Your task to perform on an android device: Open calendar and show me the first week of next month Image 0: 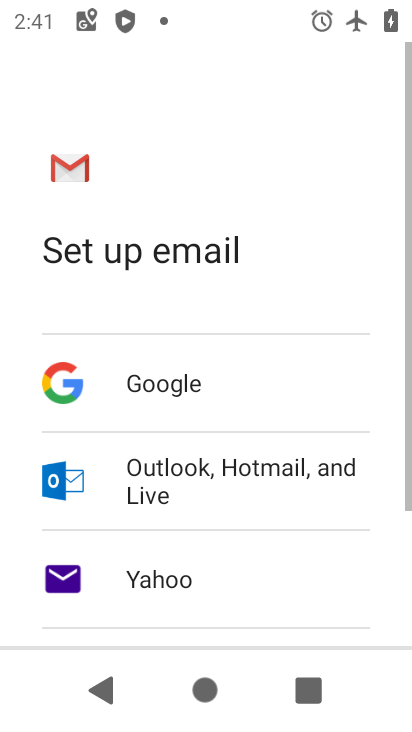
Step 0: press home button
Your task to perform on an android device: Open calendar and show me the first week of next month Image 1: 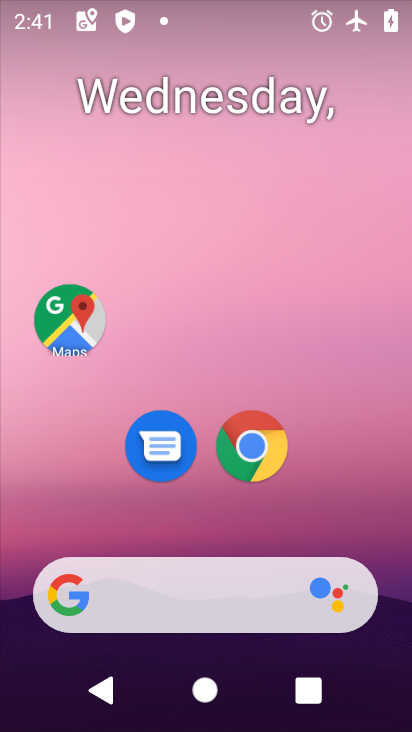
Step 1: drag from (217, 532) to (190, 227)
Your task to perform on an android device: Open calendar and show me the first week of next month Image 2: 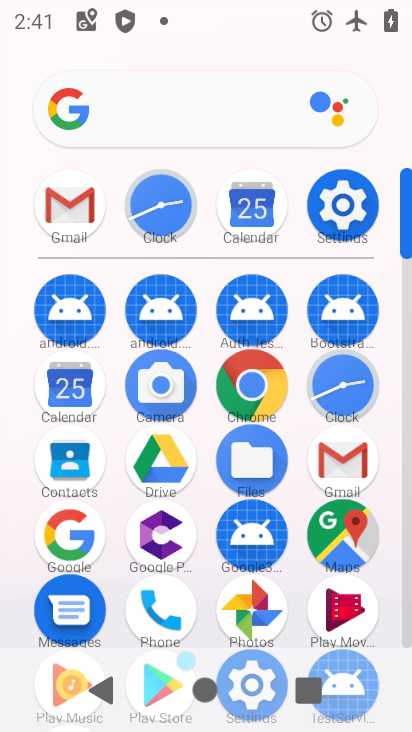
Step 2: click (239, 211)
Your task to perform on an android device: Open calendar and show me the first week of next month Image 3: 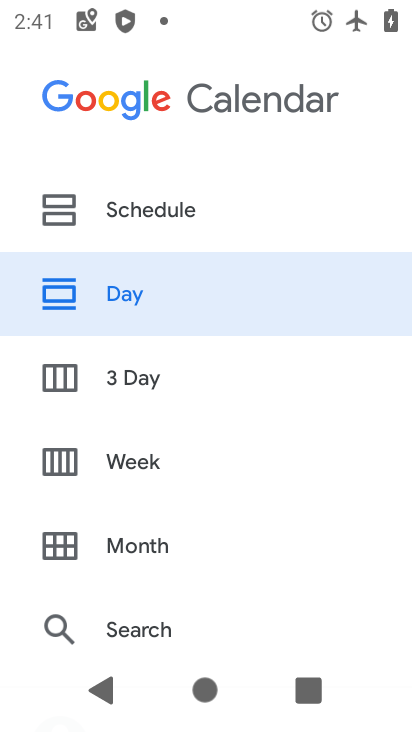
Step 3: click (200, 237)
Your task to perform on an android device: Open calendar and show me the first week of next month Image 4: 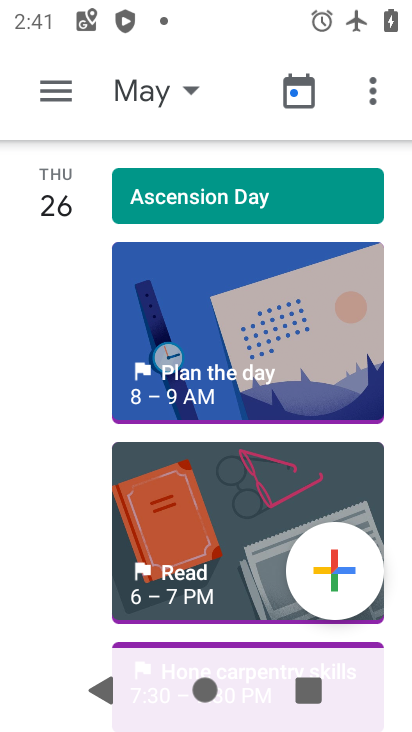
Step 4: click (191, 92)
Your task to perform on an android device: Open calendar and show me the first week of next month Image 5: 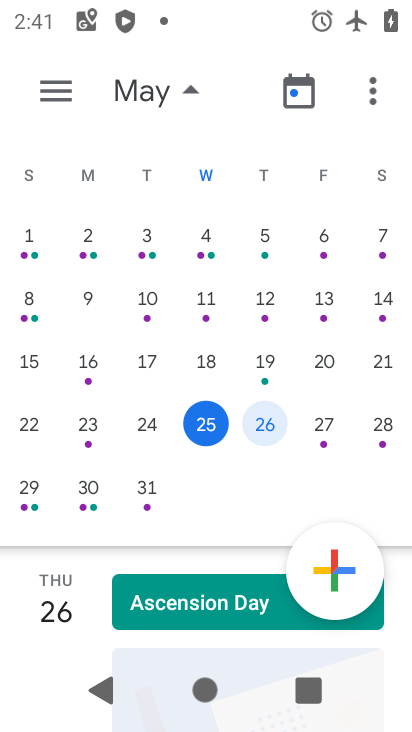
Step 5: drag from (338, 314) to (11, 295)
Your task to perform on an android device: Open calendar and show me the first week of next month Image 6: 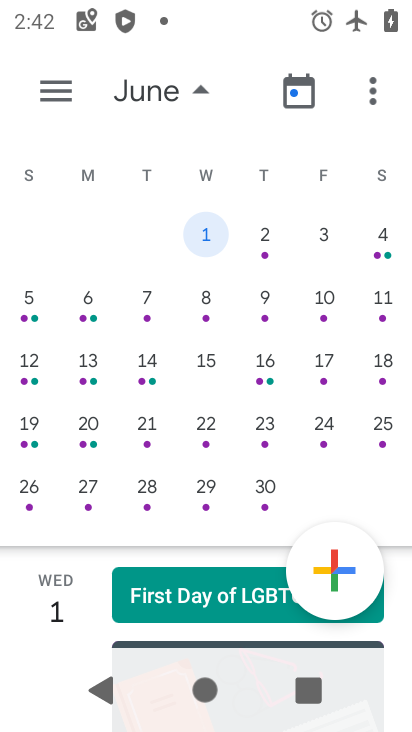
Step 6: click (209, 242)
Your task to perform on an android device: Open calendar and show me the first week of next month Image 7: 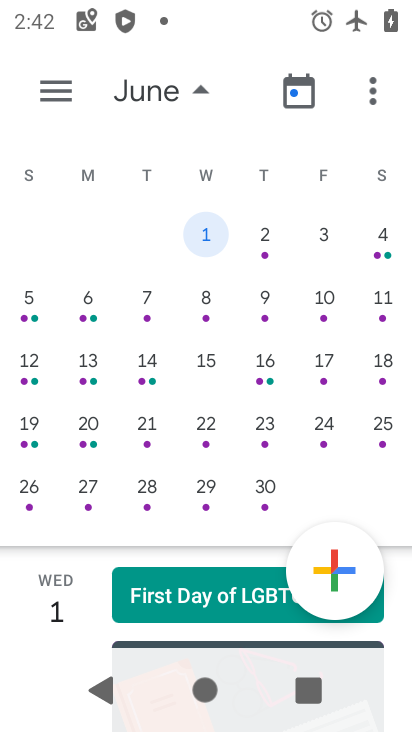
Step 7: task complete